Your task to perform on an android device: toggle data saver in the chrome app Image 0: 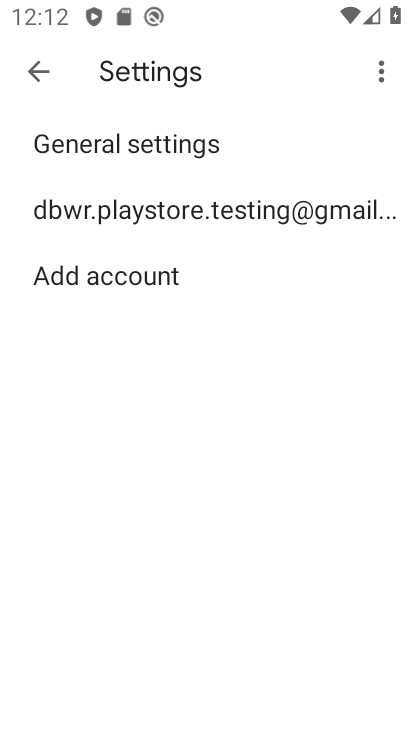
Step 0: press home button
Your task to perform on an android device: toggle data saver in the chrome app Image 1: 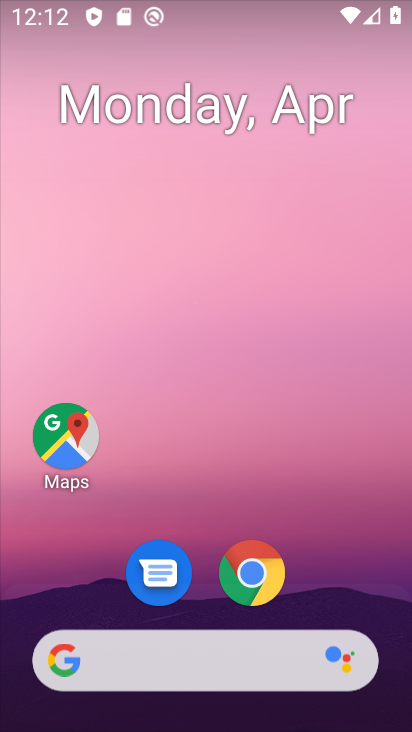
Step 1: click (250, 571)
Your task to perform on an android device: toggle data saver in the chrome app Image 2: 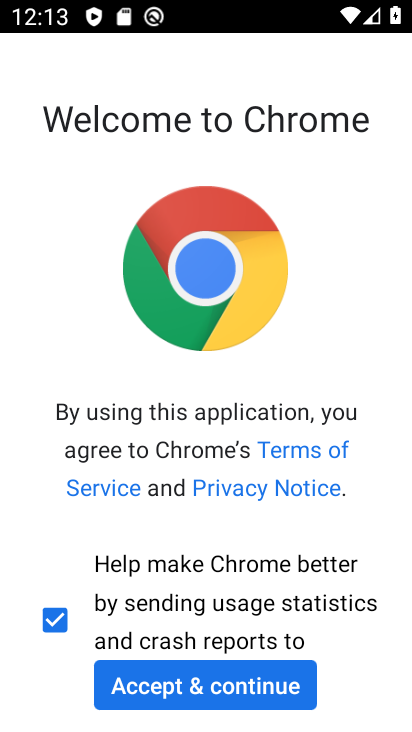
Step 2: click (242, 684)
Your task to perform on an android device: toggle data saver in the chrome app Image 3: 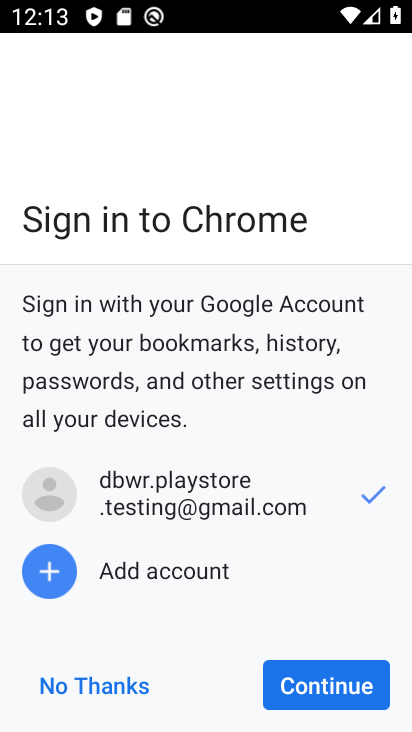
Step 3: click (328, 680)
Your task to perform on an android device: toggle data saver in the chrome app Image 4: 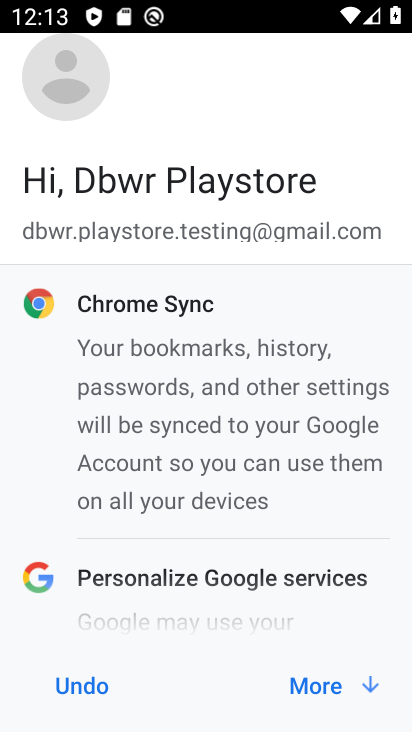
Step 4: click (298, 680)
Your task to perform on an android device: toggle data saver in the chrome app Image 5: 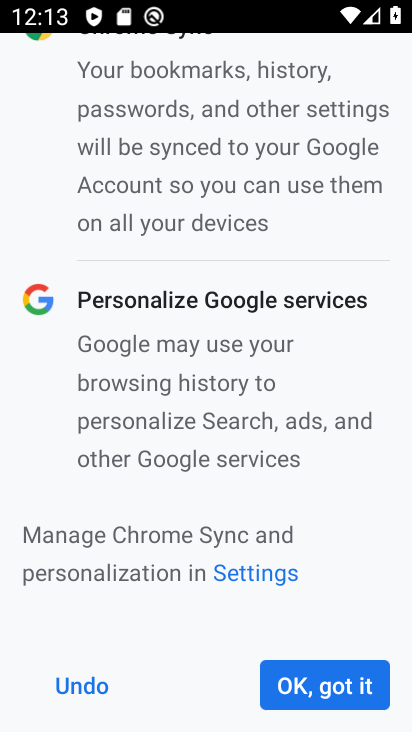
Step 5: click (296, 676)
Your task to perform on an android device: toggle data saver in the chrome app Image 6: 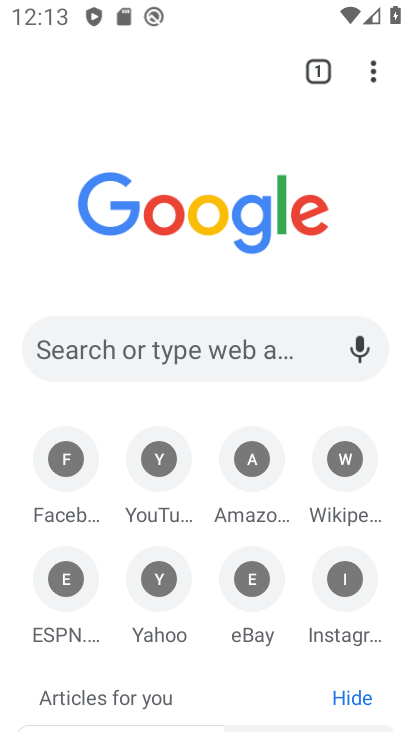
Step 6: drag from (373, 74) to (185, 588)
Your task to perform on an android device: toggle data saver in the chrome app Image 7: 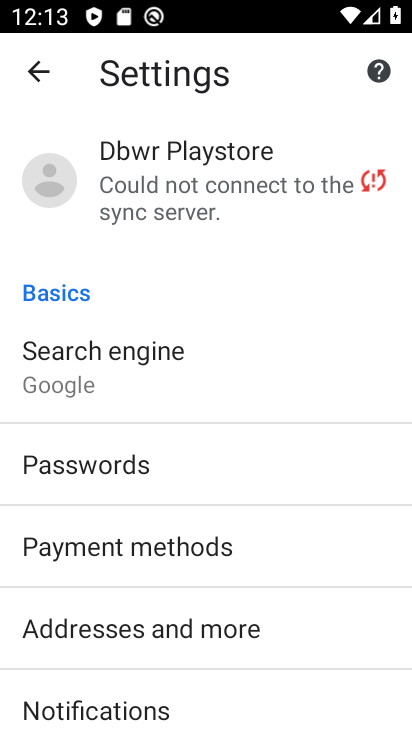
Step 7: drag from (214, 699) to (228, 239)
Your task to perform on an android device: toggle data saver in the chrome app Image 8: 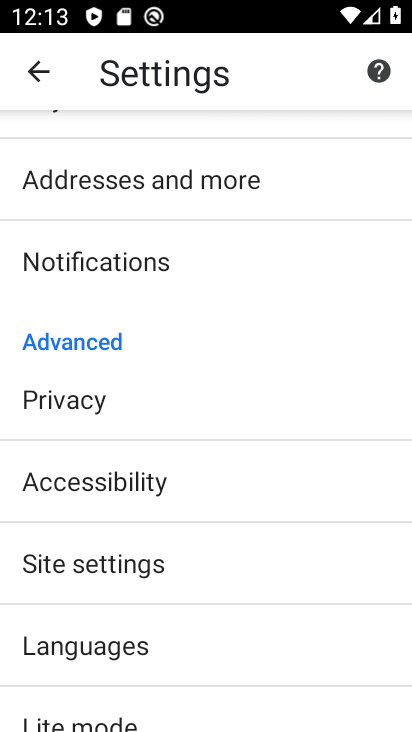
Step 8: drag from (189, 695) to (192, 363)
Your task to perform on an android device: toggle data saver in the chrome app Image 9: 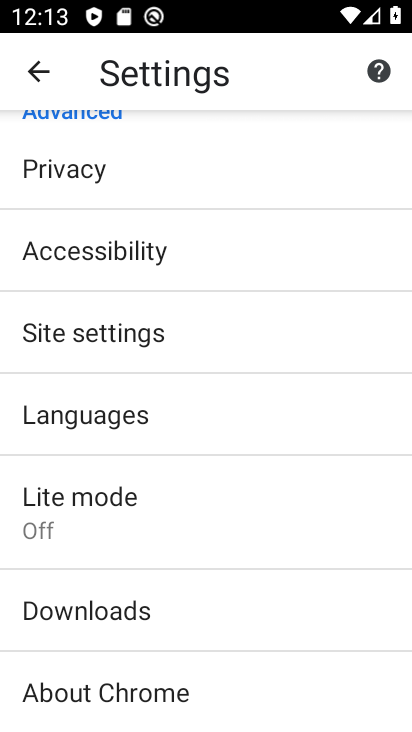
Step 9: click (109, 497)
Your task to perform on an android device: toggle data saver in the chrome app Image 10: 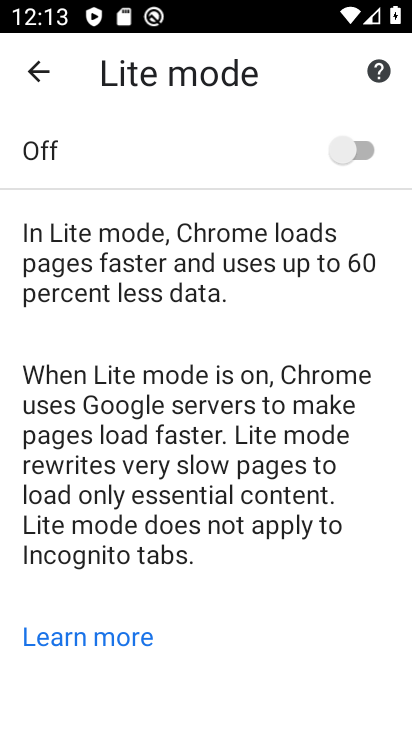
Step 10: click (360, 152)
Your task to perform on an android device: toggle data saver in the chrome app Image 11: 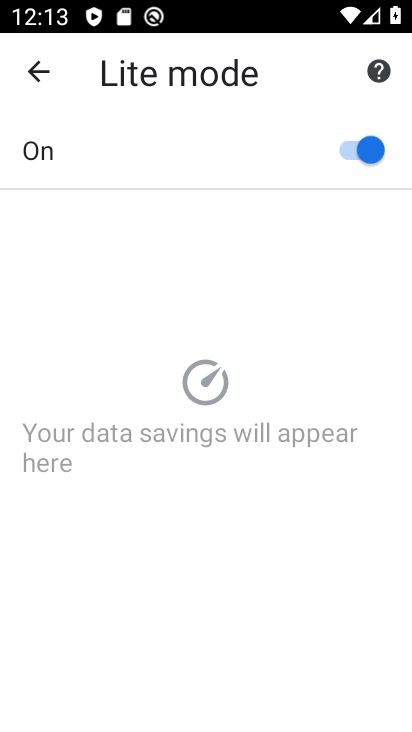
Step 11: task complete